Your task to perform on an android device: set an alarm Image 0: 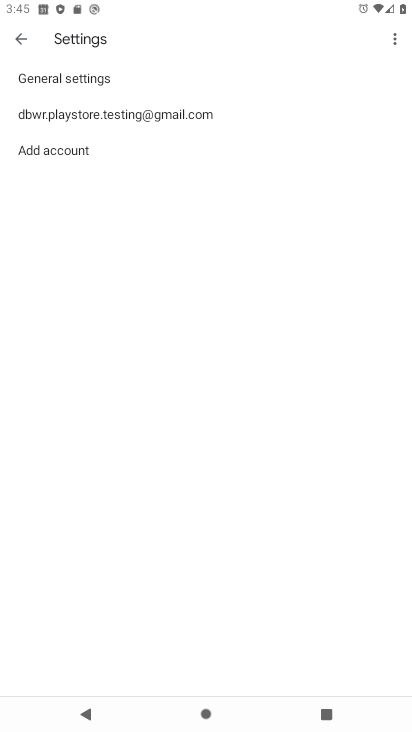
Step 0: press home button
Your task to perform on an android device: set an alarm Image 1: 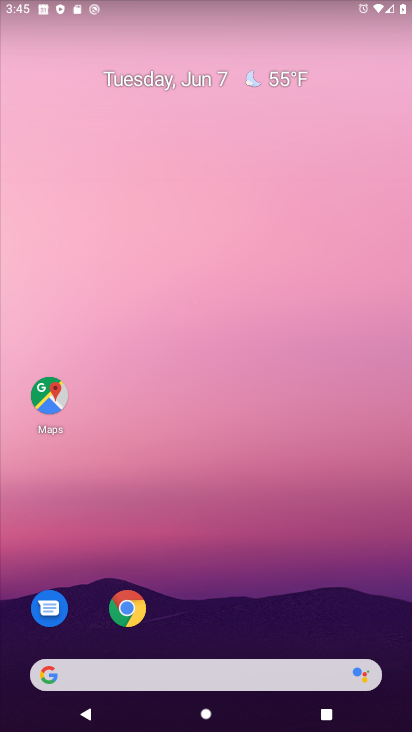
Step 1: drag from (220, 638) to (195, 13)
Your task to perform on an android device: set an alarm Image 2: 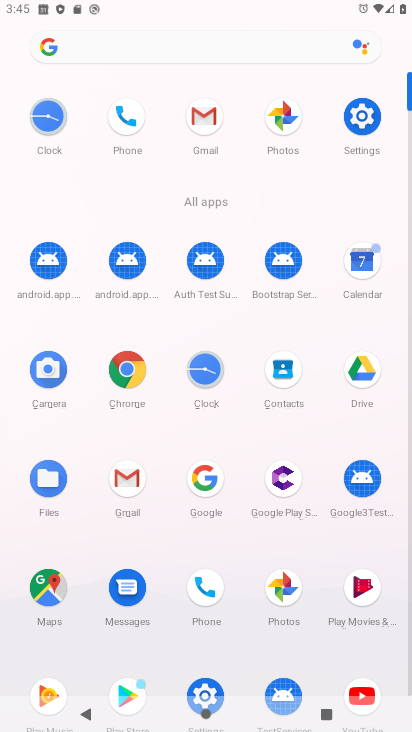
Step 2: click (199, 392)
Your task to perform on an android device: set an alarm Image 3: 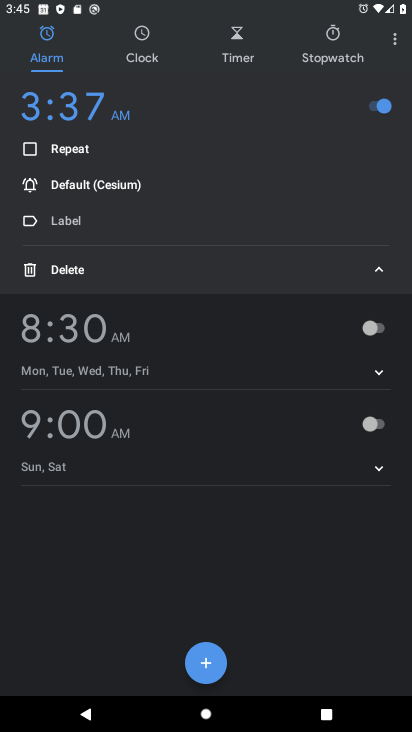
Step 3: click (210, 667)
Your task to perform on an android device: set an alarm Image 4: 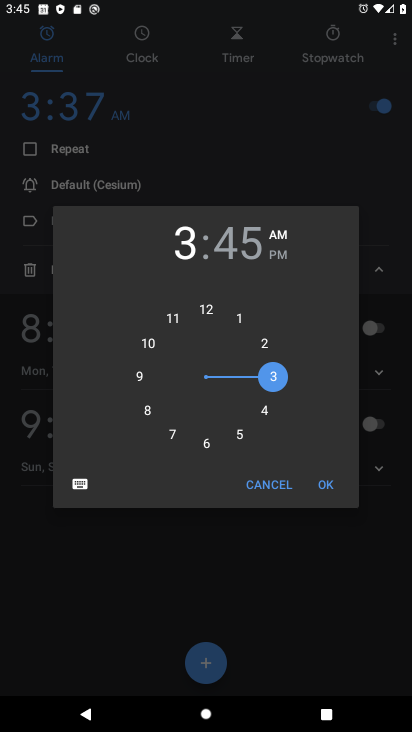
Step 4: click (319, 491)
Your task to perform on an android device: set an alarm Image 5: 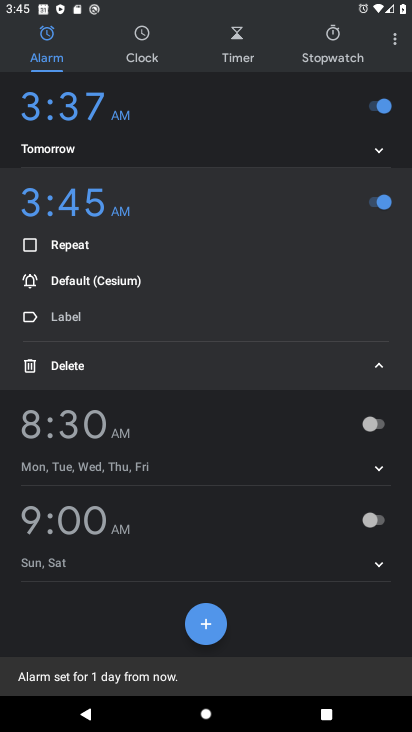
Step 5: task complete